Your task to perform on an android device: Open Google Chrome and open the bookmarks view Image 0: 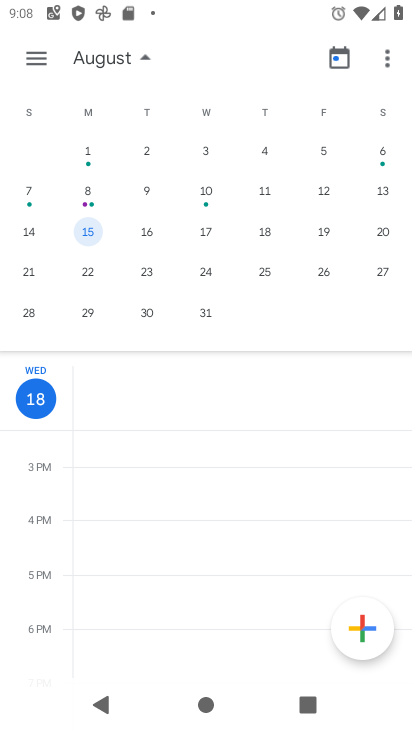
Step 0: press home button
Your task to perform on an android device: Open Google Chrome and open the bookmarks view Image 1: 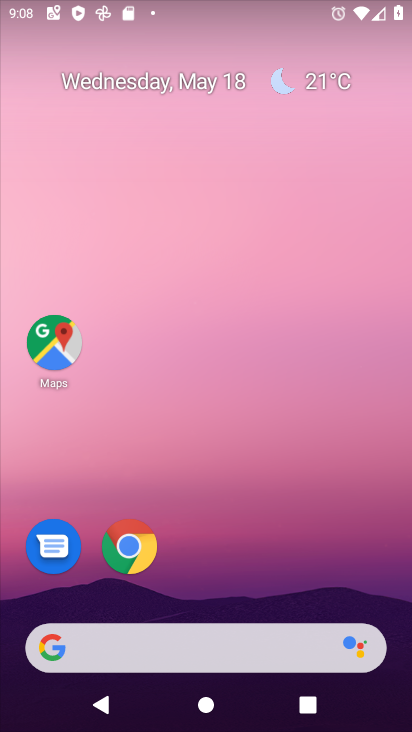
Step 1: drag from (397, 648) to (268, 31)
Your task to perform on an android device: Open Google Chrome and open the bookmarks view Image 2: 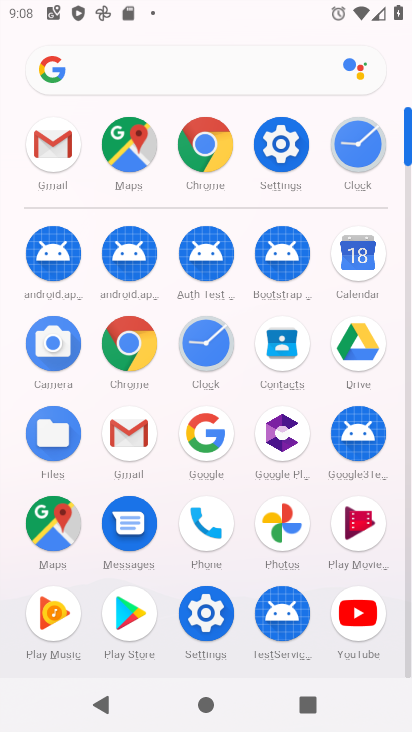
Step 2: click (133, 335)
Your task to perform on an android device: Open Google Chrome and open the bookmarks view Image 3: 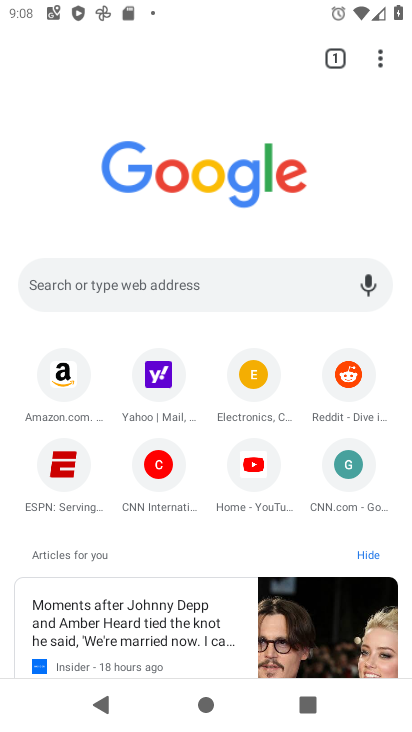
Step 3: click (377, 46)
Your task to perform on an android device: Open Google Chrome and open the bookmarks view Image 4: 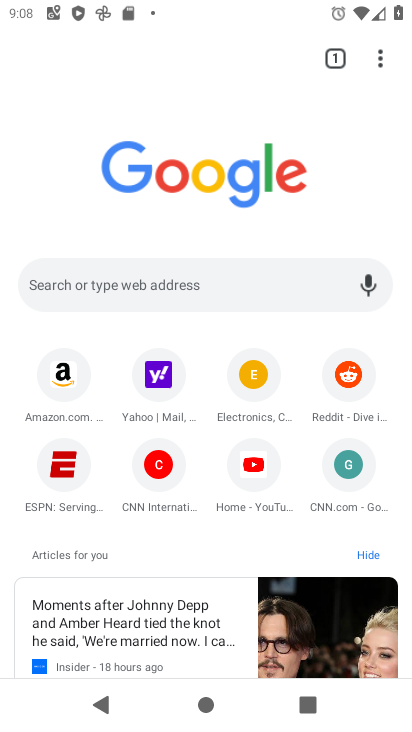
Step 4: click (383, 52)
Your task to perform on an android device: Open Google Chrome and open the bookmarks view Image 5: 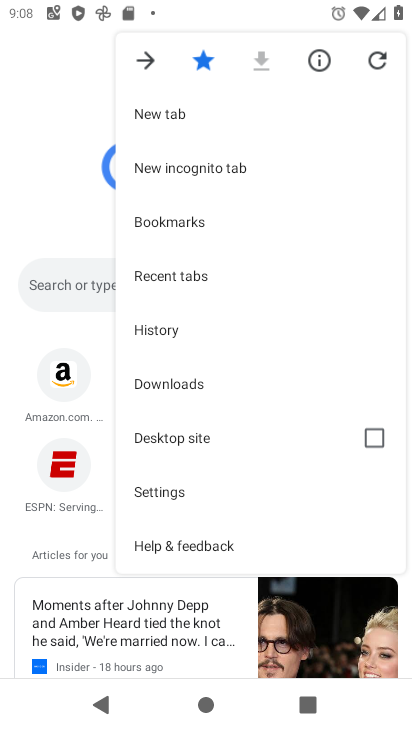
Step 5: click (225, 242)
Your task to perform on an android device: Open Google Chrome and open the bookmarks view Image 6: 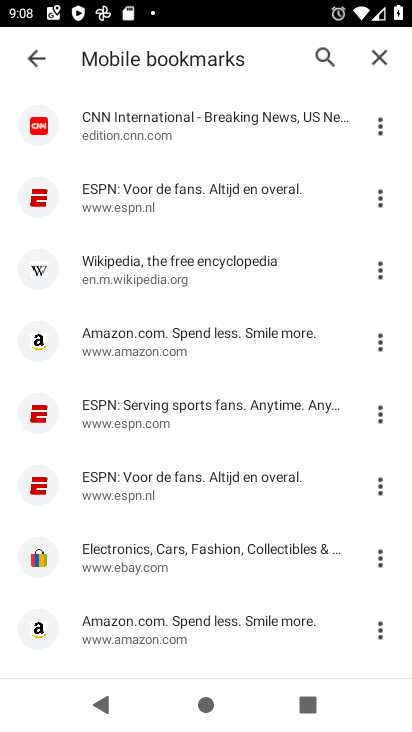
Step 6: task complete